Your task to perform on an android device: turn on sleep mode Image 0: 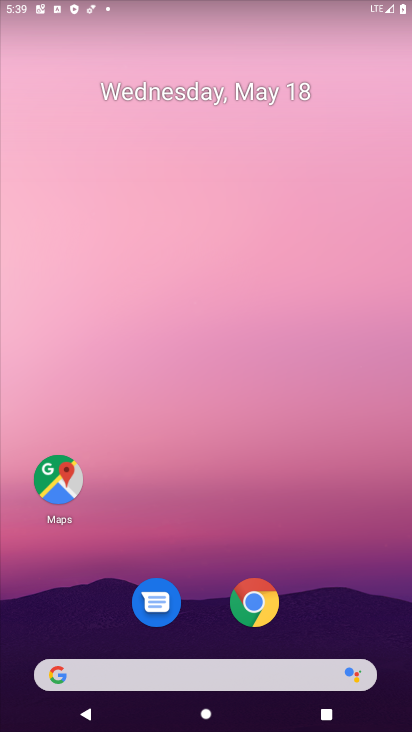
Step 0: drag from (317, 668) to (290, 57)
Your task to perform on an android device: turn on sleep mode Image 1: 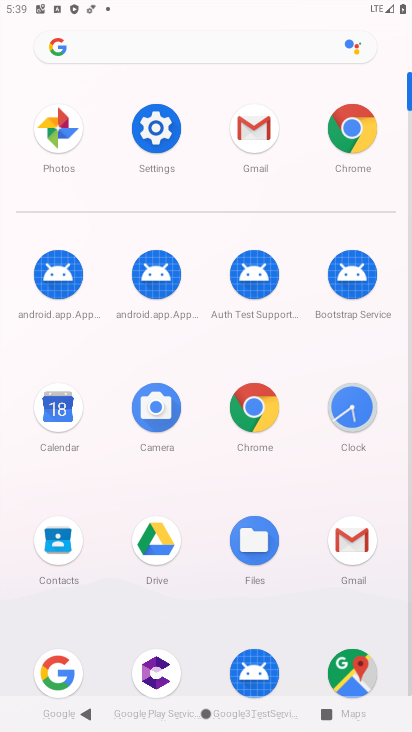
Step 1: click (171, 132)
Your task to perform on an android device: turn on sleep mode Image 2: 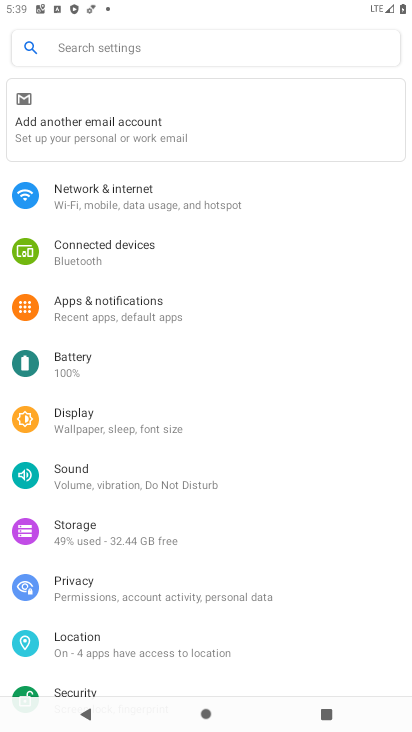
Step 2: click (131, 481)
Your task to perform on an android device: turn on sleep mode Image 3: 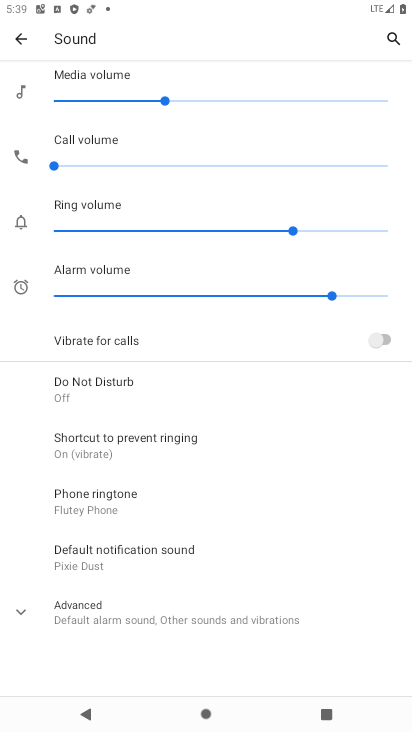
Step 3: task complete